Your task to perform on an android device: check data usage Image 0: 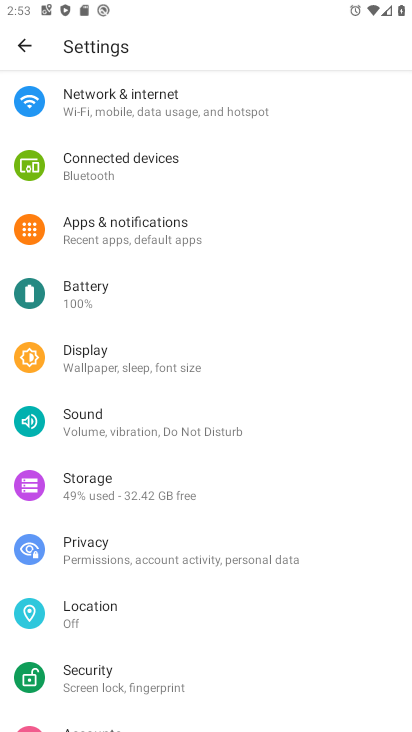
Step 0: click (151, 96)
Your task to perform on an android device: check data usage Image 1: 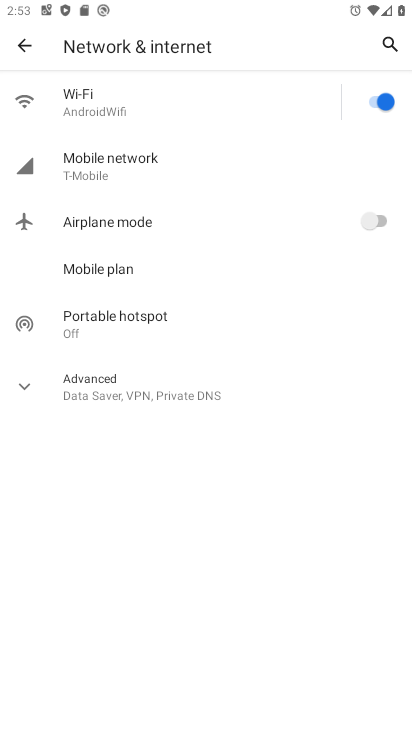
Step 1: click (124, 158)
Your task to perform on an android device: check data usage Image 2: 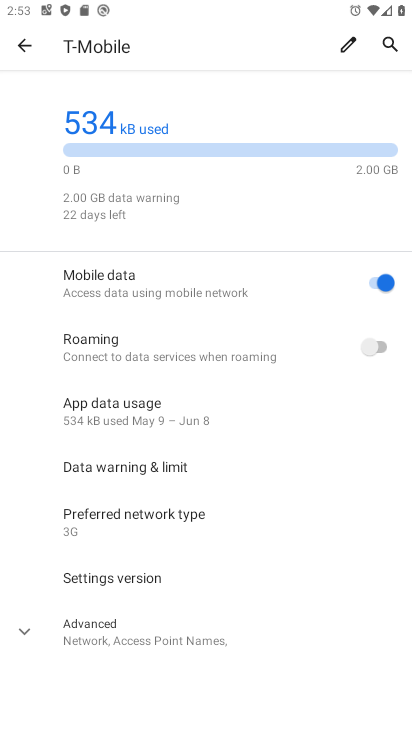
Step 2: click (136, 419)
Your task to perform on an android device: check data usage Image 3: 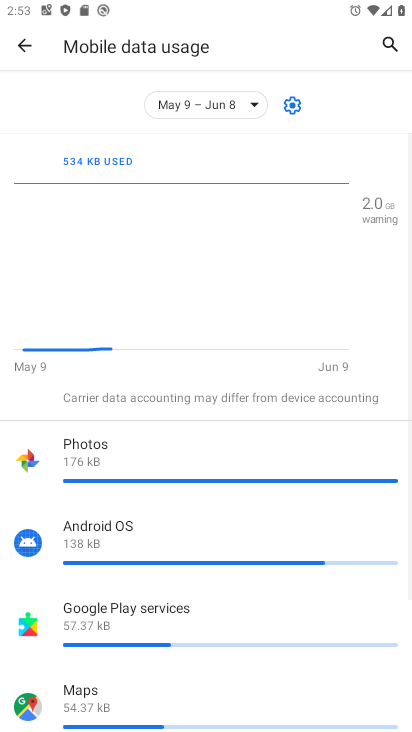
Step 3: task complete